Your task to perform on an android device: remove spam from my inbox in the gmail app Image 0: 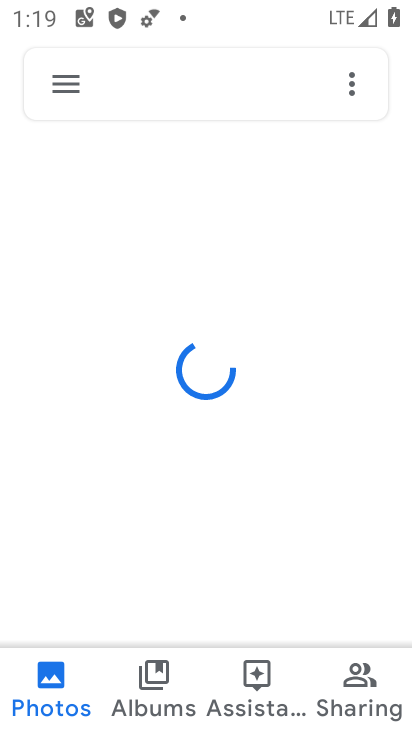
Step 0: press home button
Your task to perform on an android device: remove spam from my inbox in the gmail app Image 1: 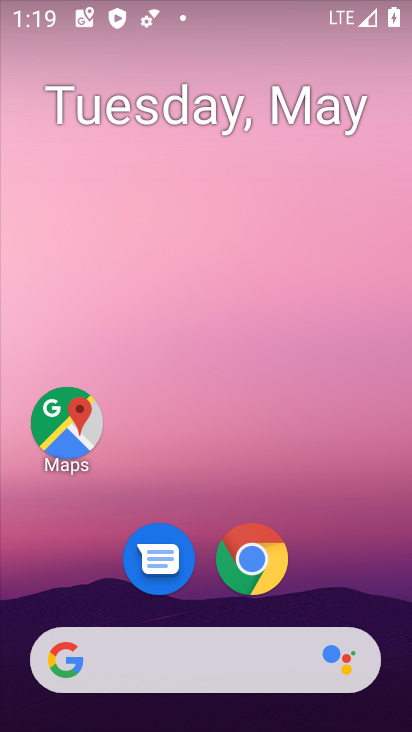
Step 1: drag from (340, 574) to (160, 80)
Your task to perform on an android device: remove spam from my inbox in the gmail app Image 2: 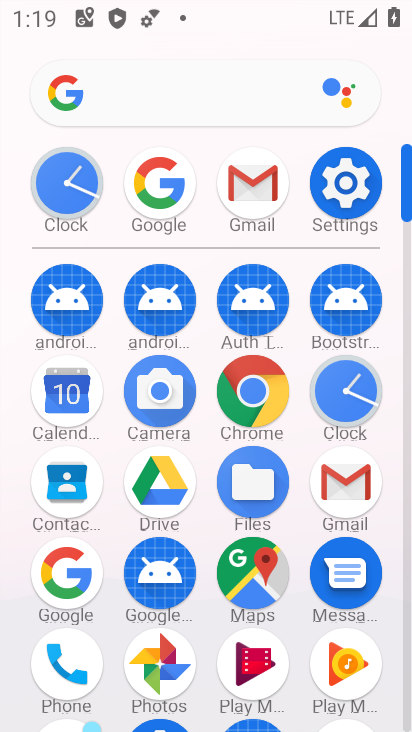
Step 2: click (323, 483)
Your task to perform on an android device: remove spam from my inbox in the gmail app Image 3: 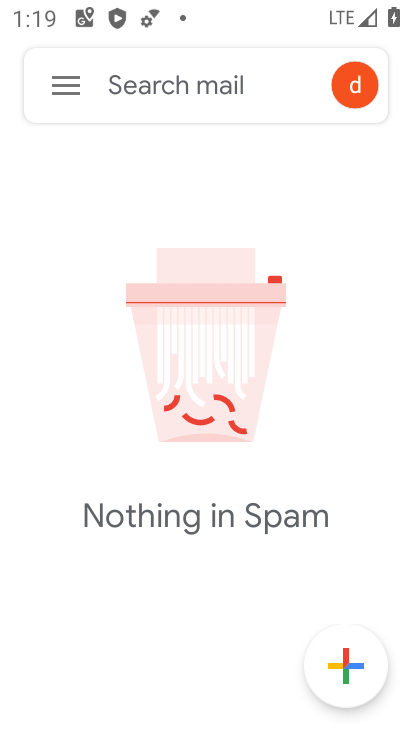
Step 3: click (55, 86)
Your task to perform on an android device: remove spam from my inbox in the gmail app Image 4: 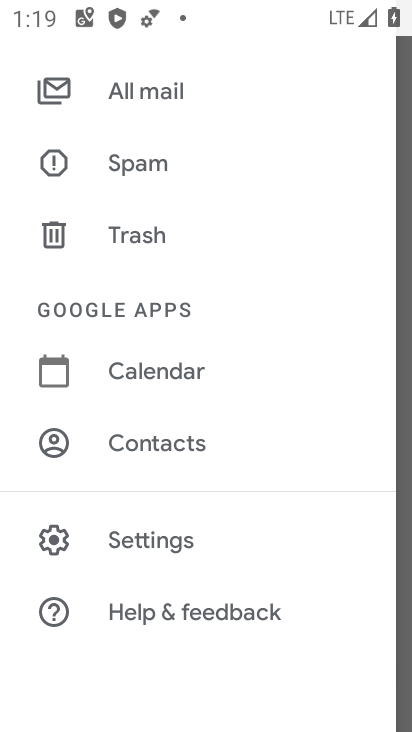
Step 4: click (190, 162)
Your task to perform on an android device: remove spam from my inbox in the gmail app Image 5: 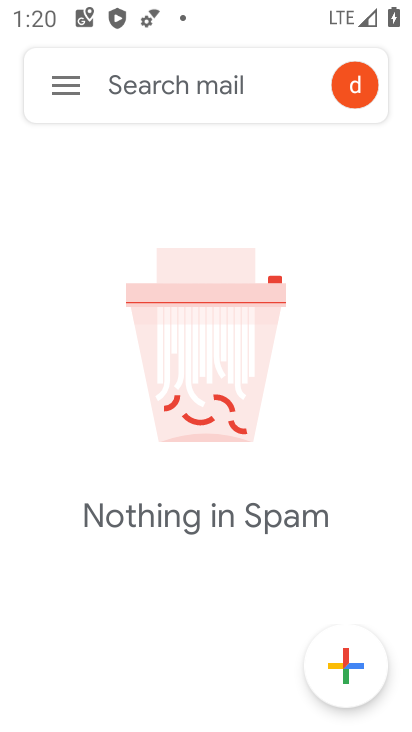
Step 5: task complete